Your task to perform on an android device: move an email to a new category in the gmail app Image 0: 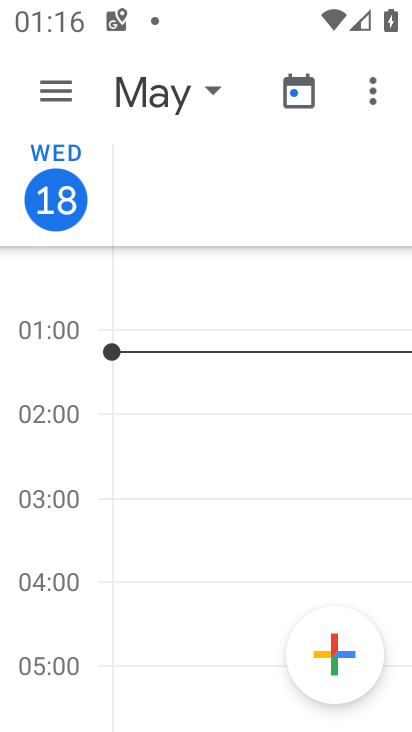
Step 0: press home button
Your task to perform on an android device: move an email to a new category in the gmail app Image 1: 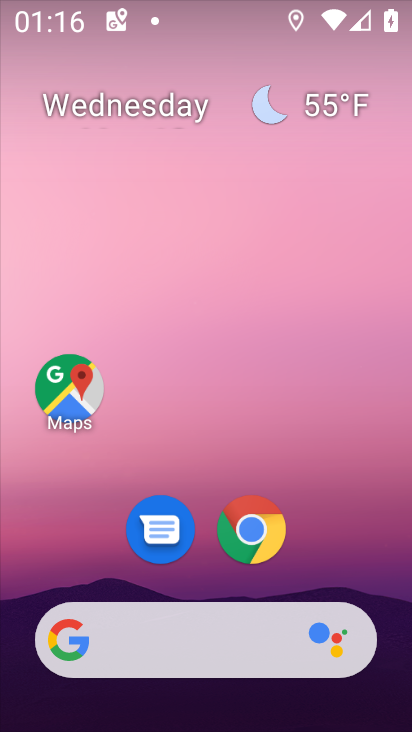
Step 1: drag from (214, 726) to (220, 146)
Your task to perform on an android device: move an email to a new category in the gmail app Image 2: 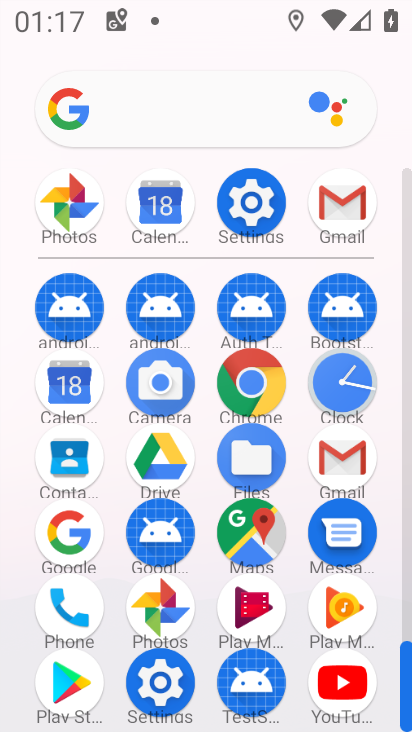
Step 2: click (333, 458)
Your task to perform on an android device: move an email to a new category in the gmail app Image 3: 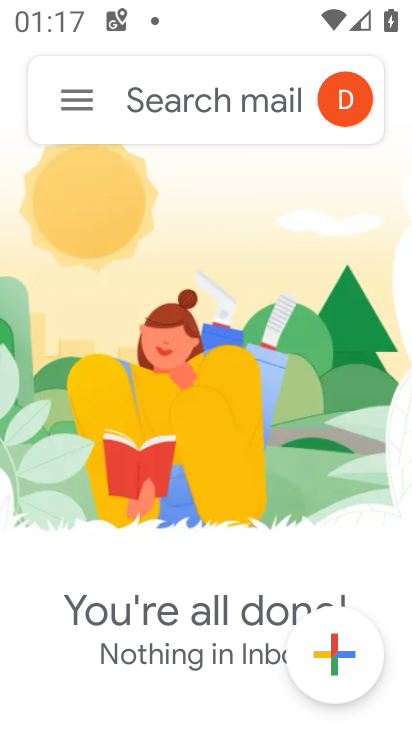
Step 3: task complete